Your task to perform on an android device: toggle improve location accuracy Image 0: 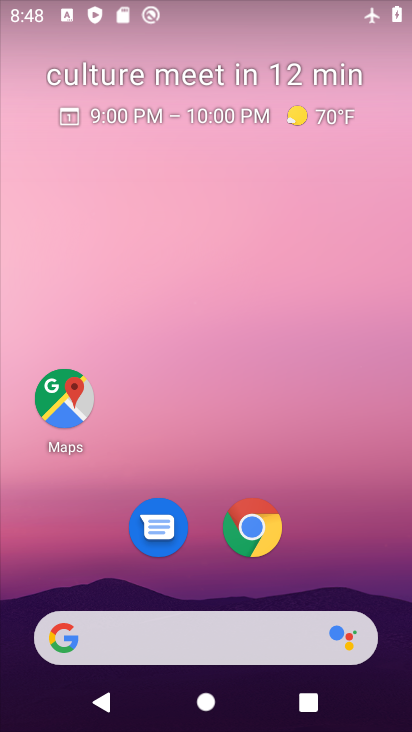
Step 0: drag from (193, 562) to (193, 420)
Your task to perform on an android device: toggle improve location accuracy Image 1: 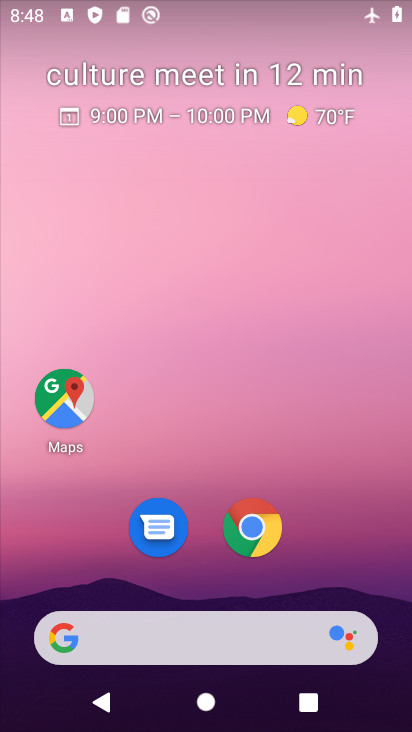
Step 1: drag from (225, 567) to (245, 167)
Your task to perform on an android device: toggle improve location accuracy Image 2: 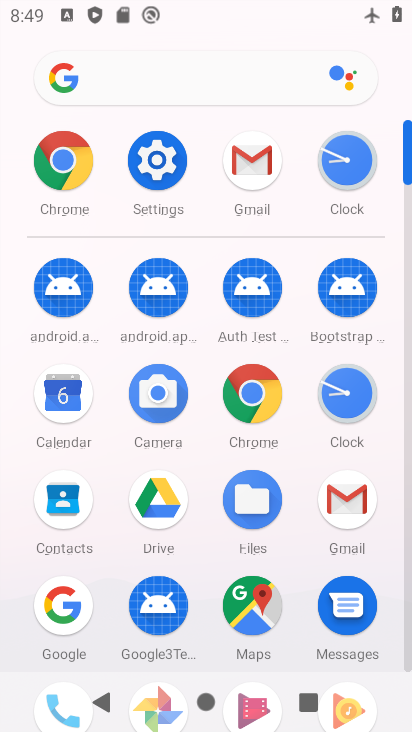
Step 2: click (153, 188)
Your task to perform on an android device: toggle improve location accuracy Image 3: 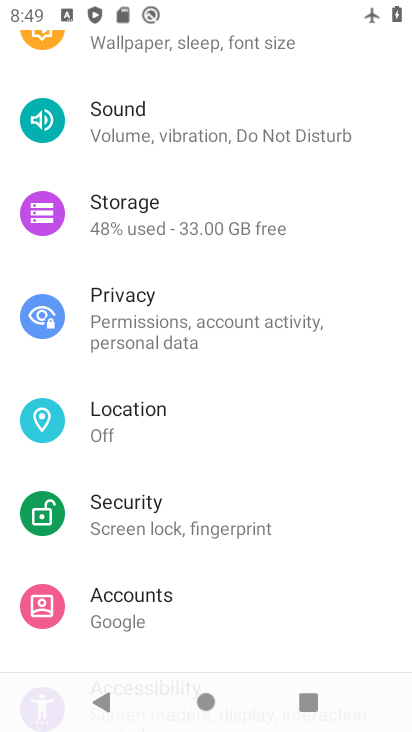
Step 3: click (138, 417)
Your task to perform on an android device: toggle improve location accuracy Image 4: 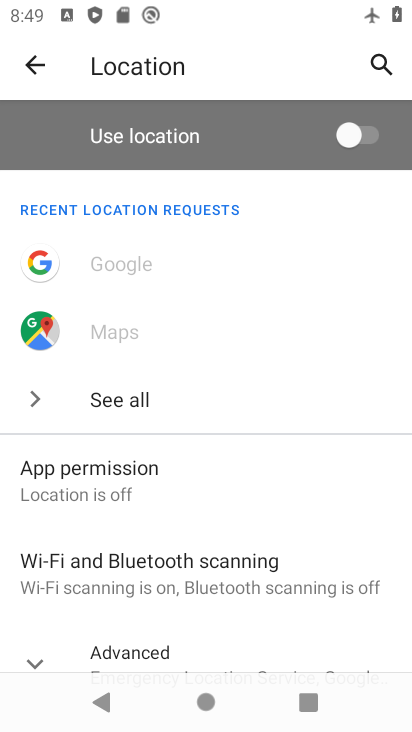
Step 4: drag from (135, 448) to (184, 241)
Your task to perform on an android device: toggle improve location accuracy Image 5: 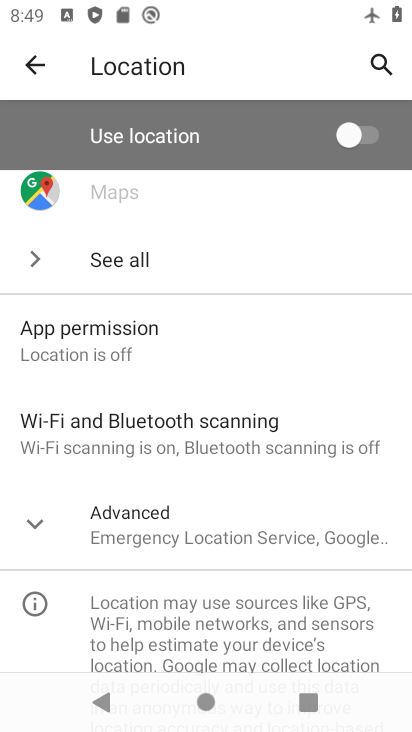
Step 5: click (217, 527)
Your task to perform on an android device: toggle improve location accuracy Image 6: 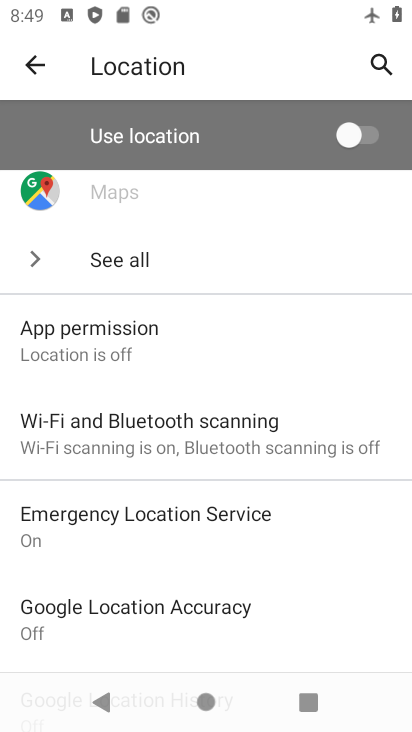
Step 6: drag from (135, 536) to (174, 343)
Your task to perform on an android device: toggle improve location accuracy Image 7: 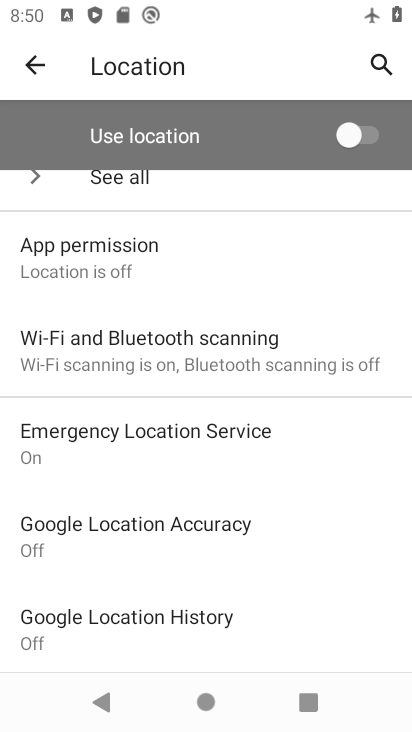
Step 7: click (182, 533)
Your task to perform on an android device: toggle improve location accuracy Image 8: 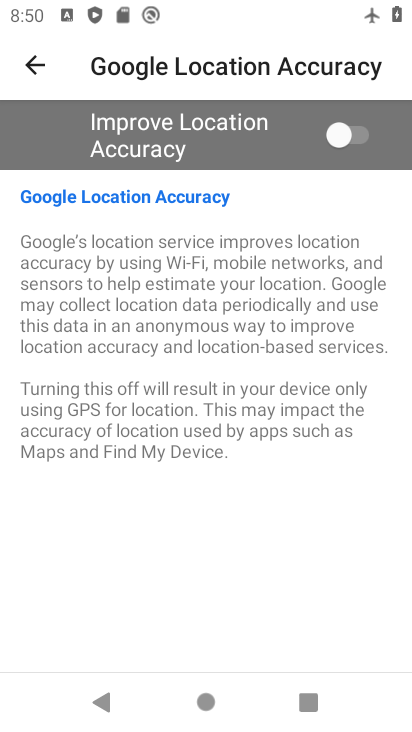
Step 8: click (199, 142)
Your task to perform on an android device: toggle improve location accuracy Image 9: 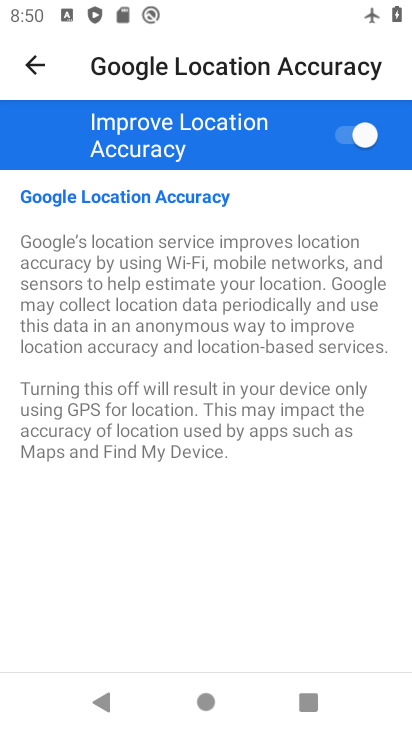
Step 9: task complete